Your task to perform on an android device: Open network settings Image 0: 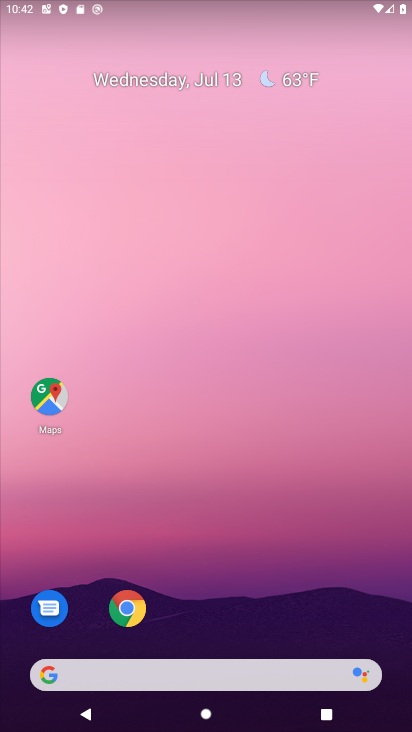
Step 0: drag from (256, 607) to (280, 149)
Your task to perform on an android device: Open network settings Image 1: 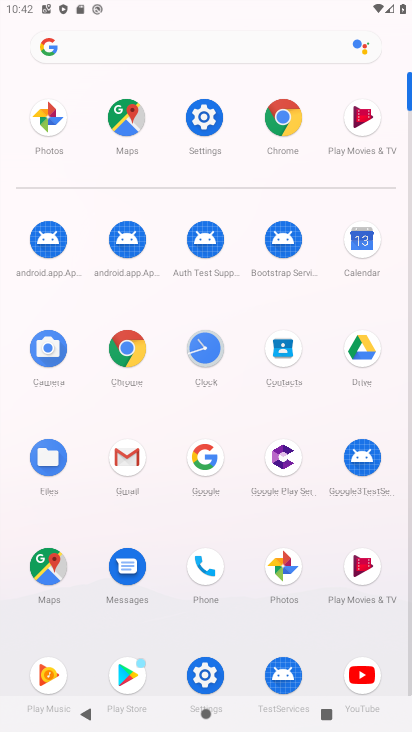
Step 1: click (213, 677)
Your task to perform on an android device: Open network settings Image 2: 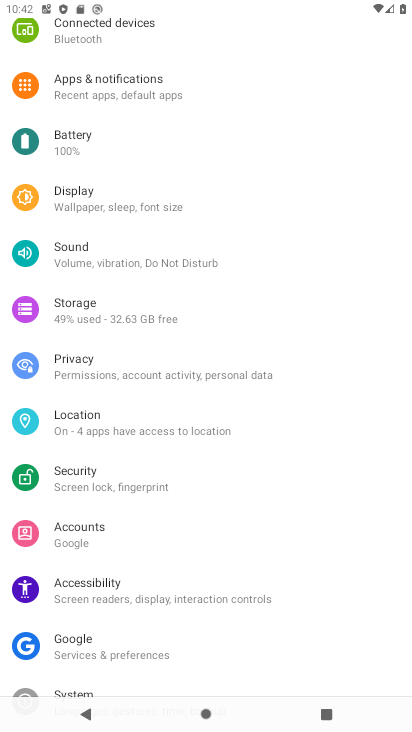
Step 2: drag from (115, 78) to (100, 662)
Your task to perform on an android device: Open network settings Image 3: 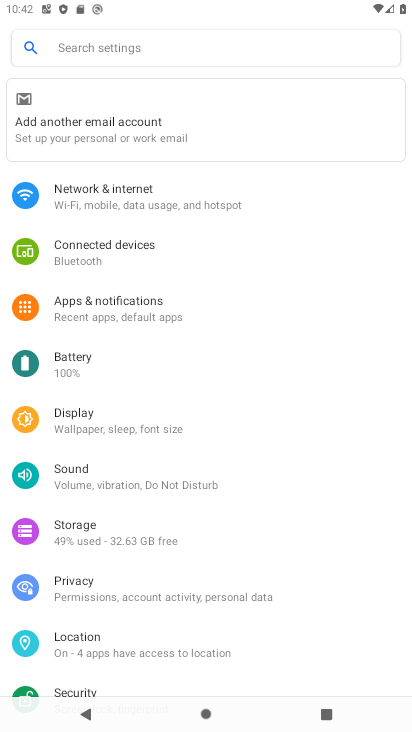
Step 3: click (107, 197)
Your task to perform on an android device: Open network settings Image 4: 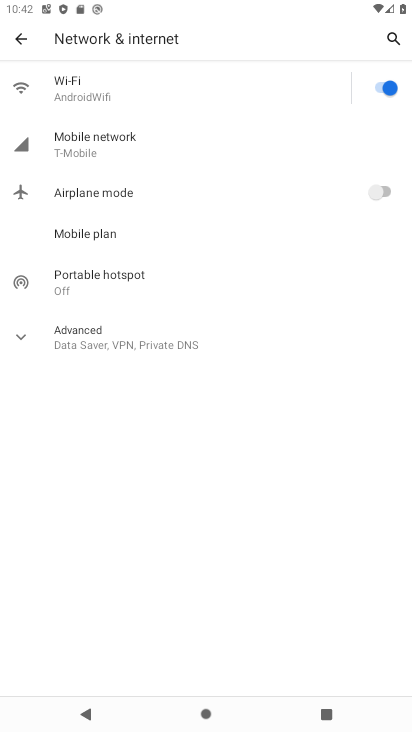
Step 4: task complete